Your task to perform on an android device: Search for vegetarian restaurants on Maps Image 0: 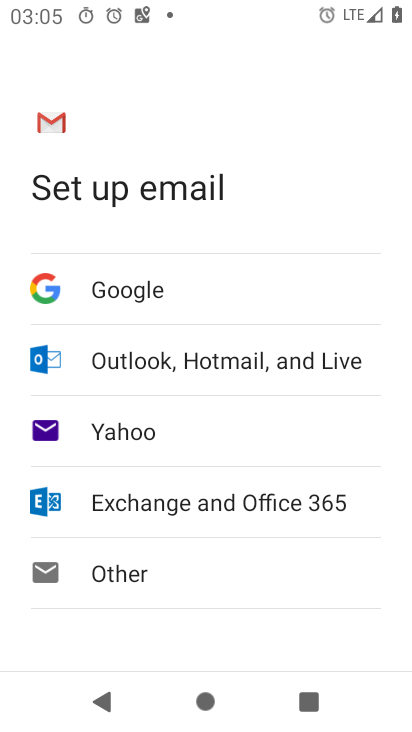
Step 0: press home button
Your task to perform on an android device: Search for vegetarian restaurants on Maps Image 1: 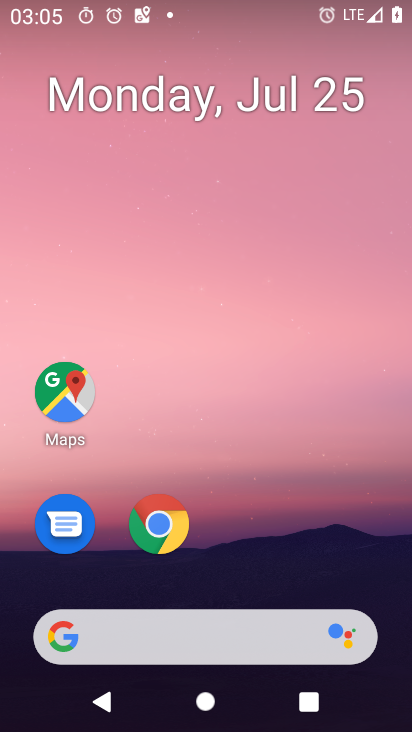
Step 1: drag from (273, 588) to (280, 129)
Your task to perform on an android device: Search for vegetarian restaurants on Maps Image 2: 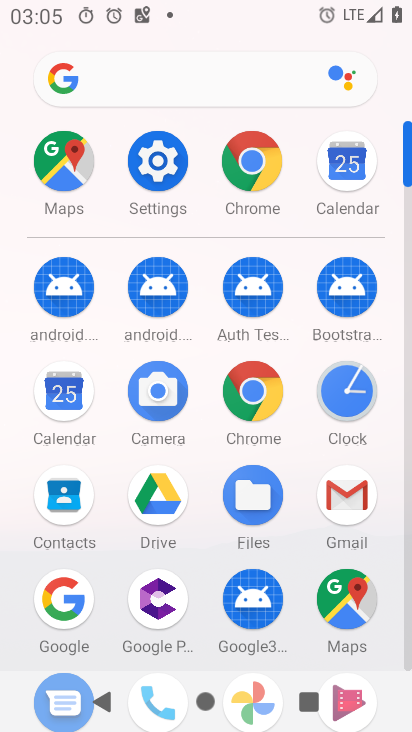
Step 2: click (50, 171)
Your task to perform on an android device: Search for vegetarian restaurants on Maps Image 3: 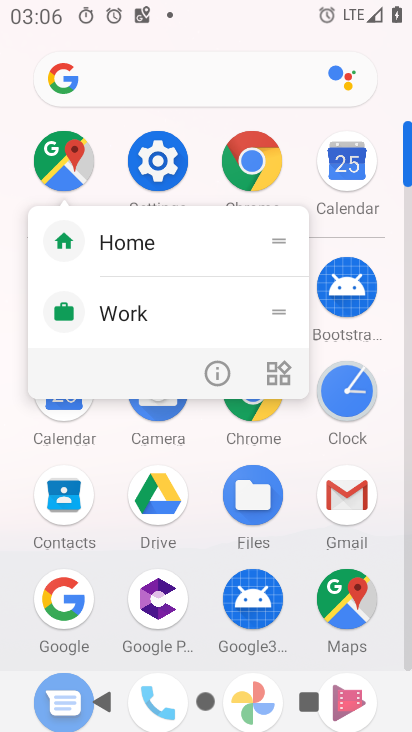
Step 3: click (74, 163)
Your task to perform on an android device: Search for vegetarian restaurants on Maps Image 4: 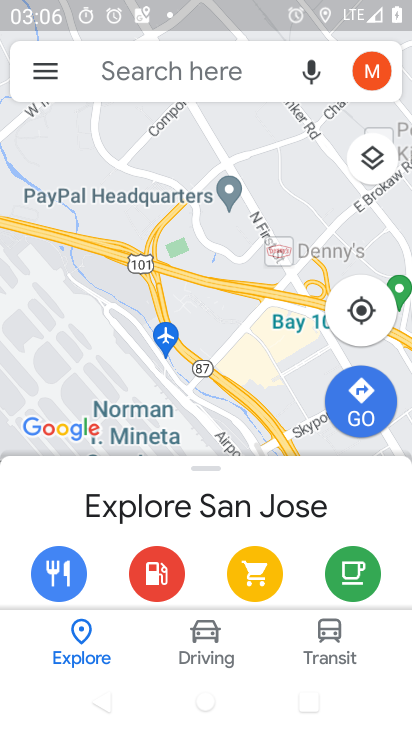
Step 4: click (199, 85)
Your task to perform on an android device: Search for vegetarian restaurants on Maps Image 5: 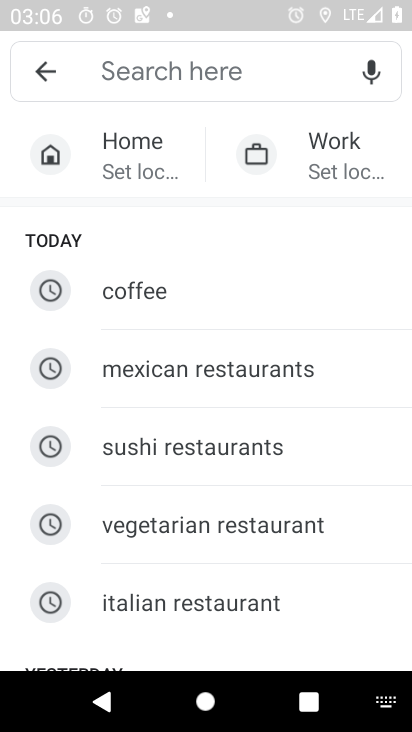
Step 5: click (195, 531)
Your task to perform on an android device: Search for vegetarian restaurants on Maps Image 6: 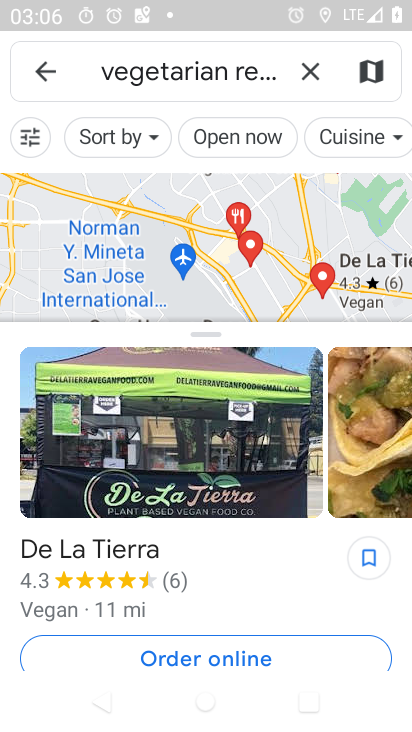
Step 6: task complete